Your task to perform on an android device: Turn off the flashlight Image 0: 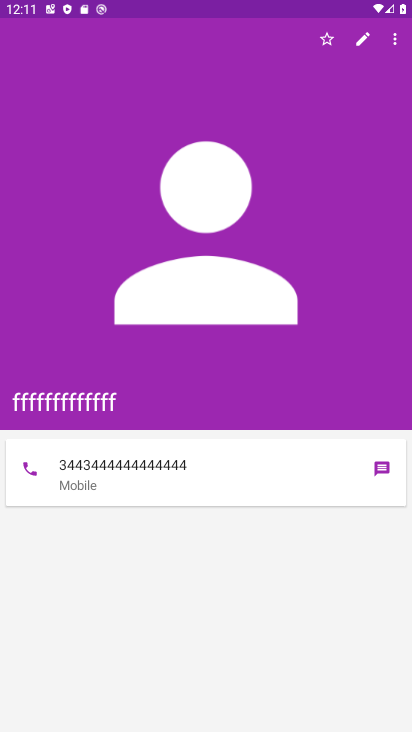
Step 0: press home button
Your task to perform on an android device: Turn off the flashlight Image 1: 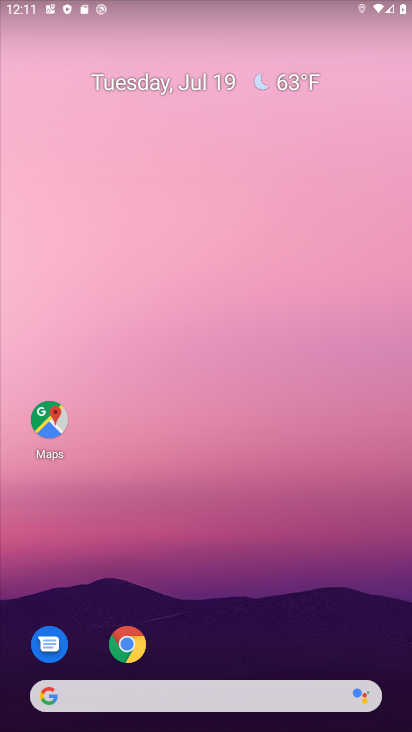
Step 1: drag from (238, 590) to (241, 119)
Your task to perform on an android device: Turn off the flashlight Image 2: 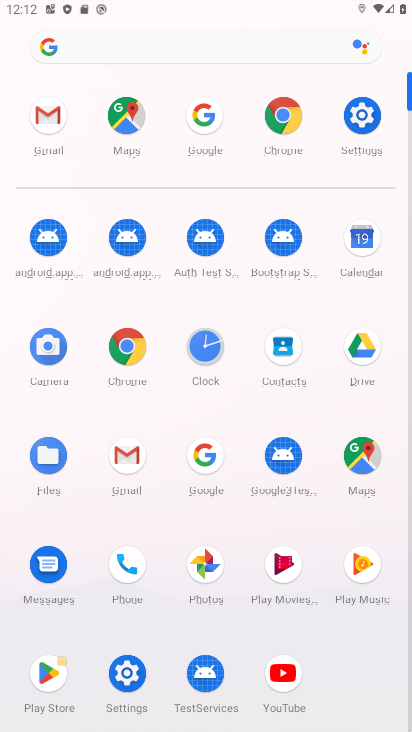
Step 2: click (367, 116)
Your task to perform on an android device: Turn off the flashlight Image 3: 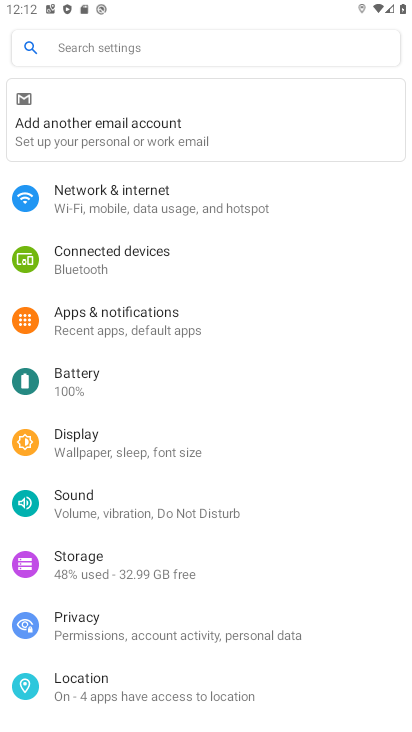
Step 3: task complete